Your task to perform on an android device: turn off smart reply in the gmail app Image 0: 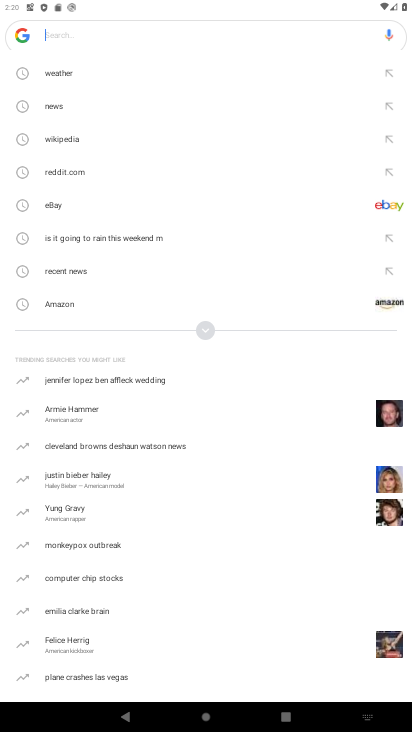
Step 0: press home button
Your task to perform on an android device: turn off smart reply in the gmail app Image 1: 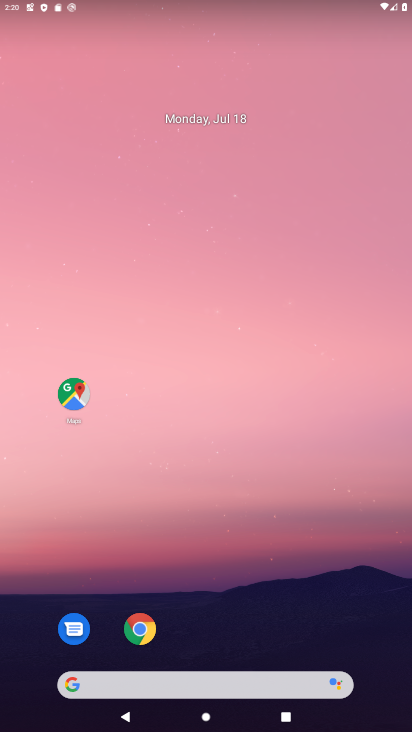
Step 1: drag from (202, 625) to (229, 203)
Your task to perform on an android device: turn off smart reply in the gmail app Image 2: 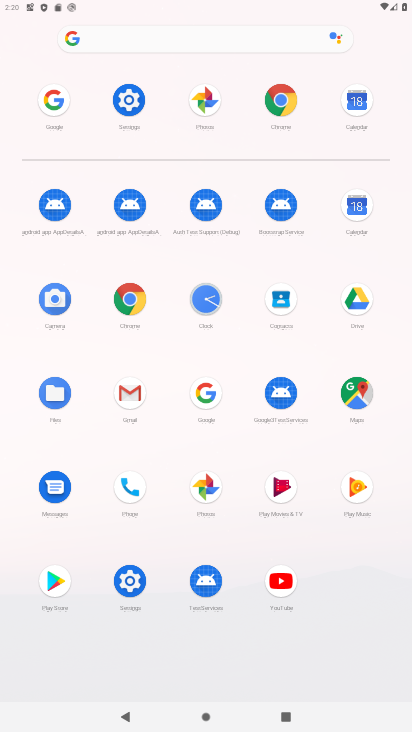
Step 2: click (137, 407)
Your task to perform on an android device: turn off smart reply in the gmail app Image 3: 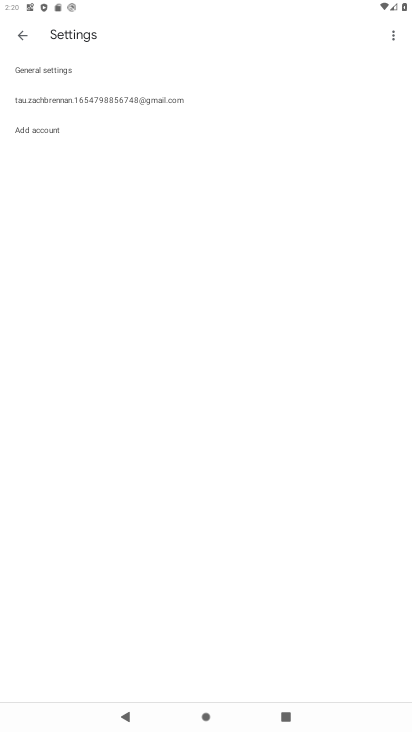
Step 3: click (152, 101)
Your task to perform on an android device: turn off smart reply in the gmail app Image 4: 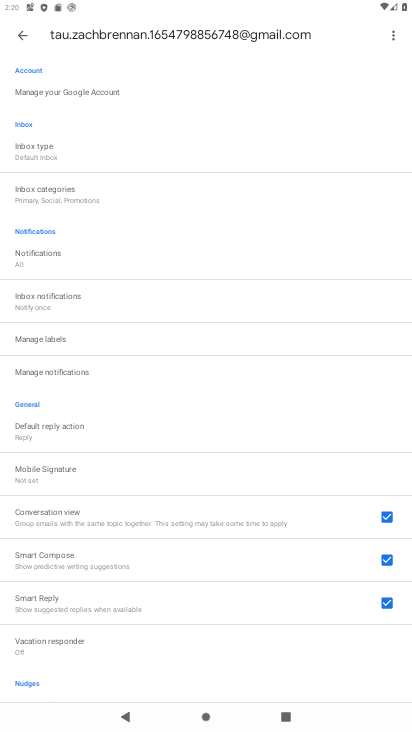
Step 4: drag from (160, 595) to (213, 335)
Your task to perform on an android device: turn off smart reply in the gmail app Image 5: 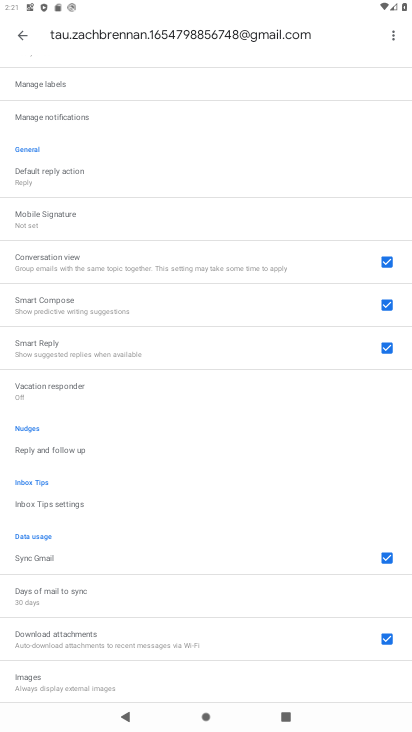
Step 5: click (381, 348)
Your task to perform on an android device: turn off smart reply in the gmail app Image 6: 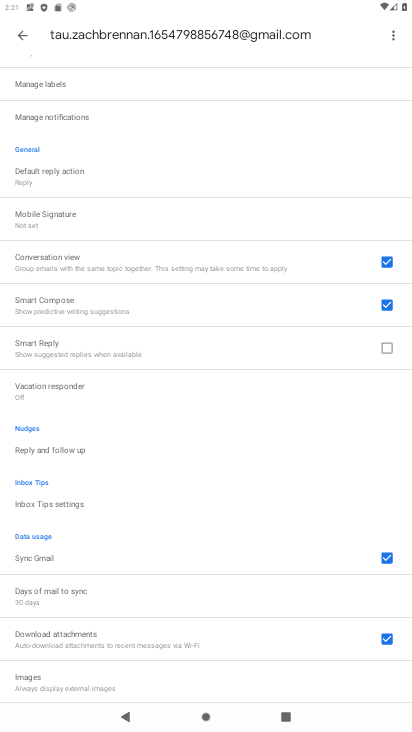
Step 6: task complete